Your task to perform on an android device: Add "razer thresher" to the cart on costco.com, then select checkout. Image 0: 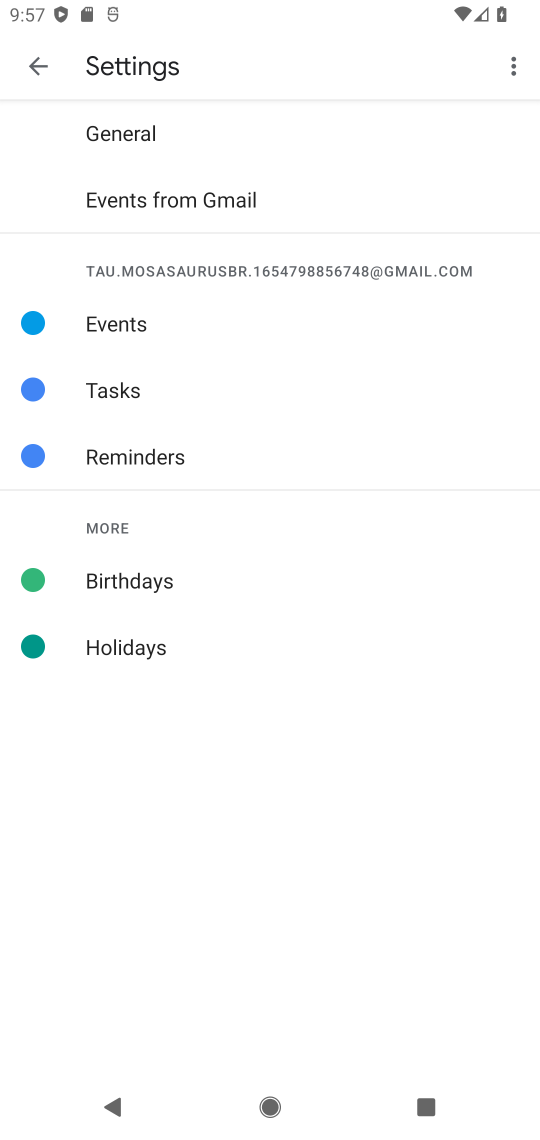
Step 0: press home button
Your task to perform on an android device: Add "razer thresher" to the cart on costco.com, then select checkout. Image 1: 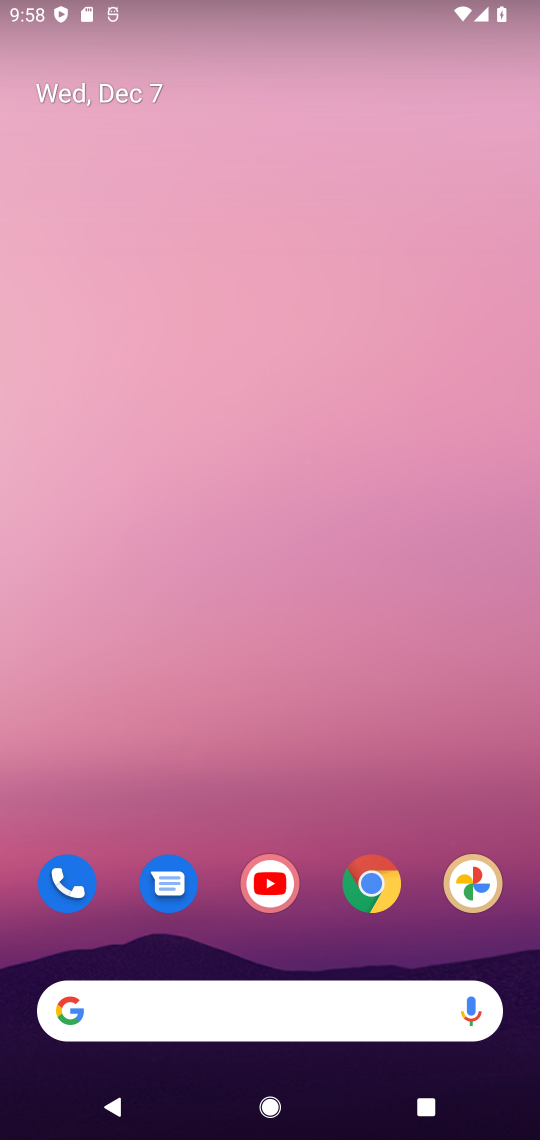
Step 1: drag from (208, 859) to (237, 176)
Your task to perform on an android device: Add "razer thresher" to the cart on costco.com, then select checkout. Image 2: 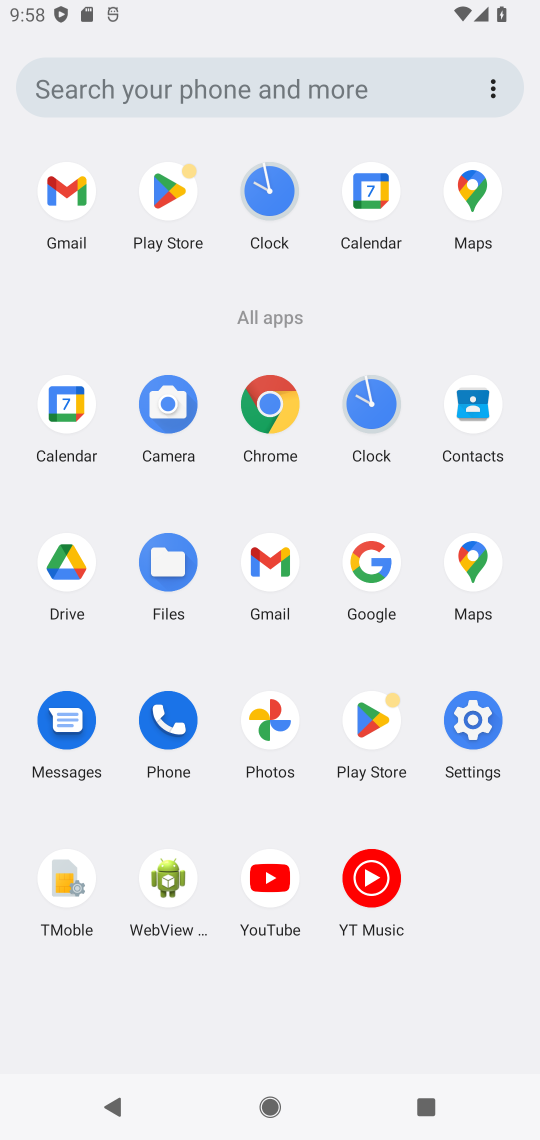
Step 2: click (376, 570)
Your task to perform on an android device: Add "razer thresher" to the cart on costco.com, then select checkout. Image 3: 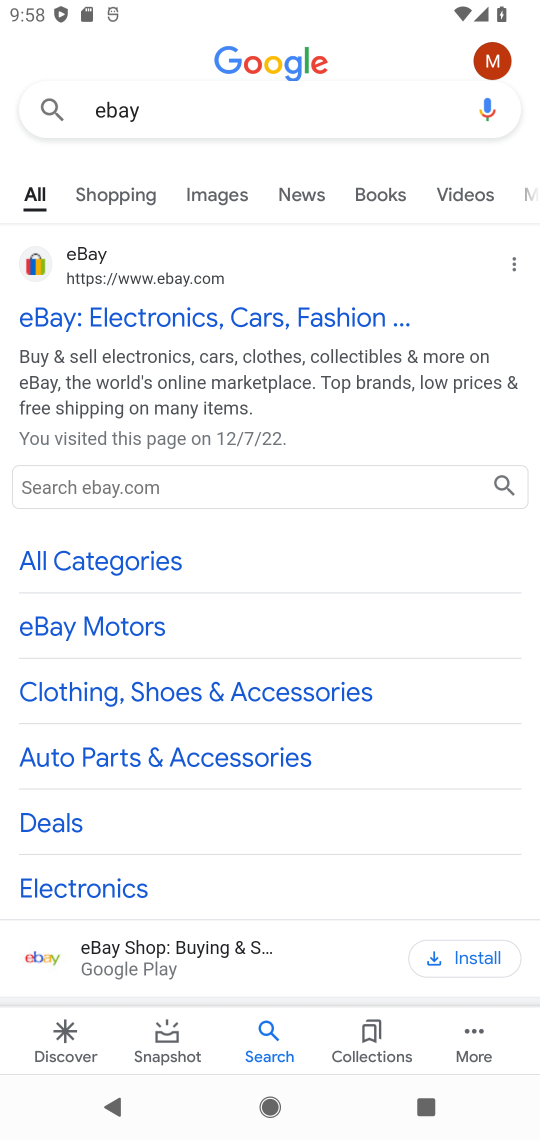
Step 3: click (161, 113)
Your task to perform on an android device: Add "razer thresher" to the cart on costco.com, then select checkout. Image 4: 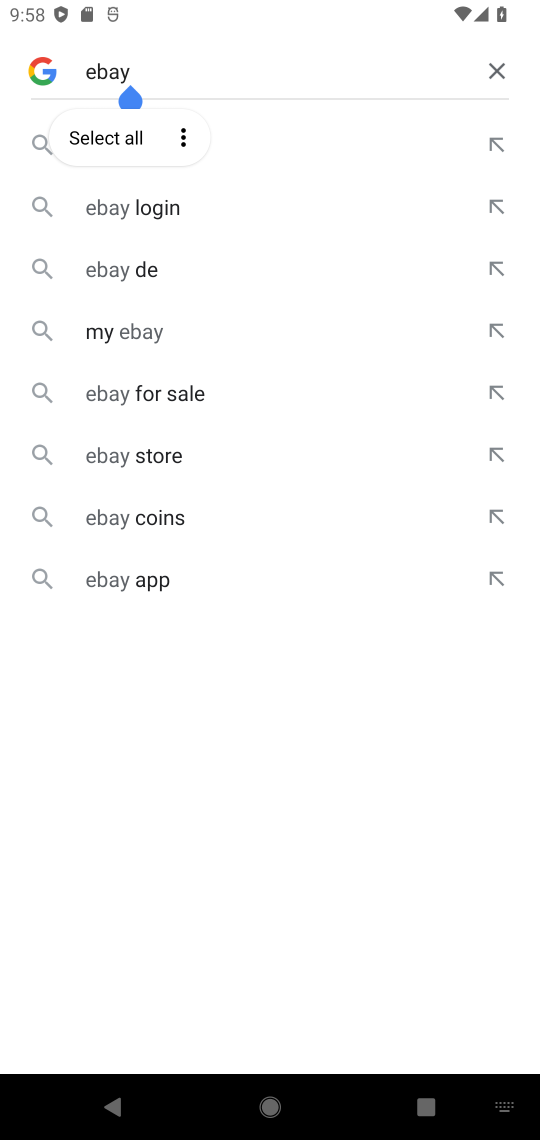
Step 4: click (492, 71)
Your task to perform on an android device: Add "razer thresher" to the cart on costco.com, then select checkout. Image 5: 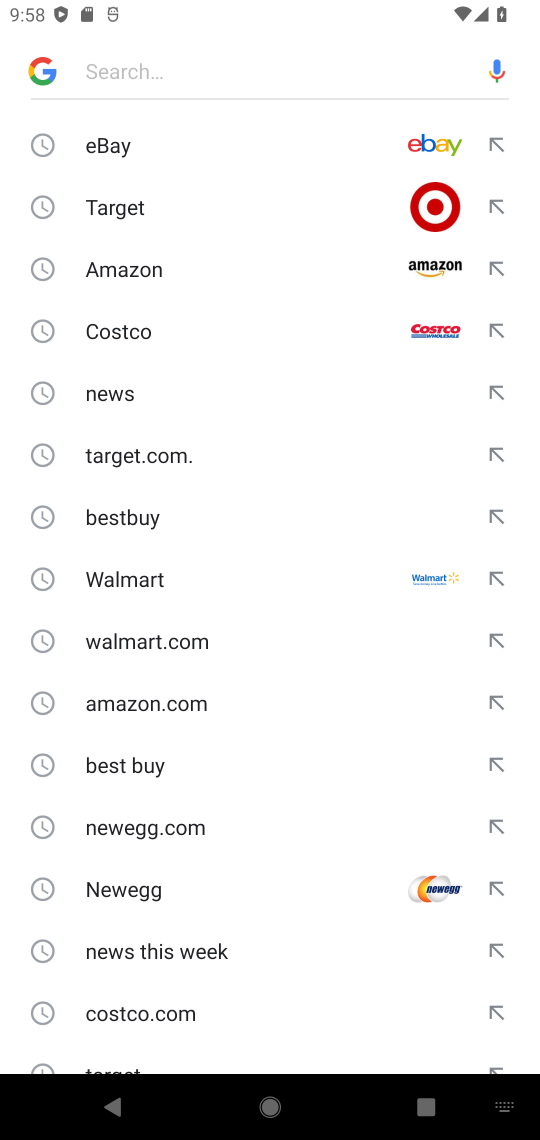
Step 5: click (153, 332)
Your task to perform on an android device: Add "razer thresher" to the cart on costco.com, then select checkout. Image 6: 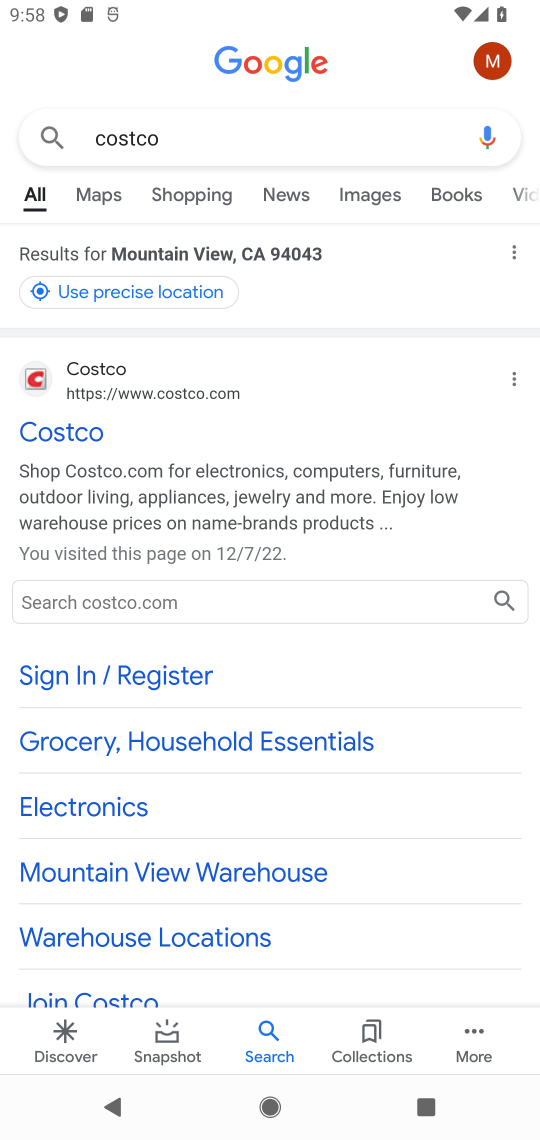
Step 6: click (67, 437)
Your task to perform on an android device: Add "razer thresher" to the cart on costco.com, then select checkout. Image 7: 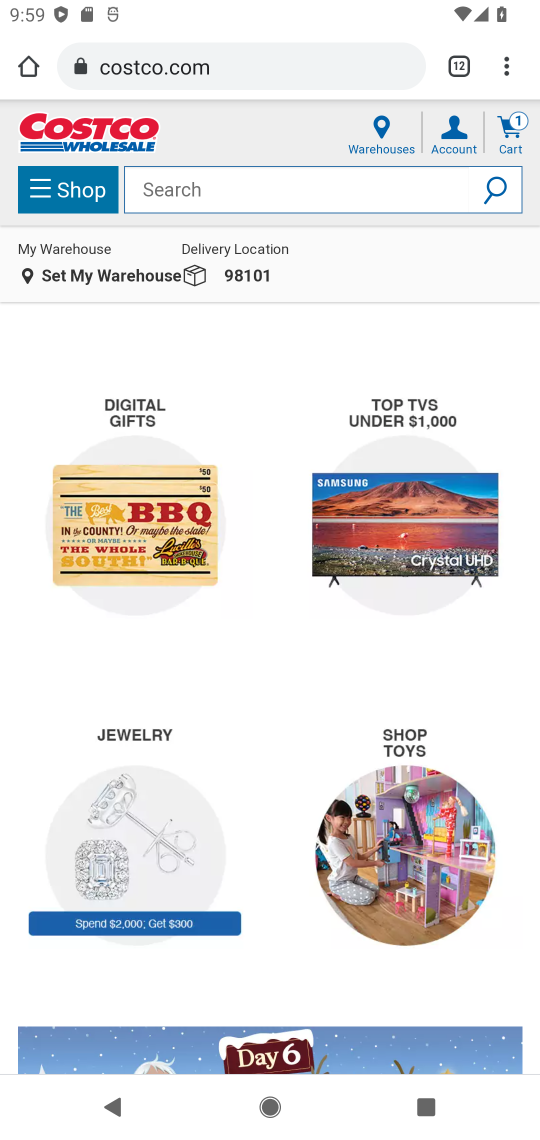
Step 7: click (194, 193)
Your task to perform on an android device: Add "razer thresher" to the cart on costco.com, then select checkout. Image 8: 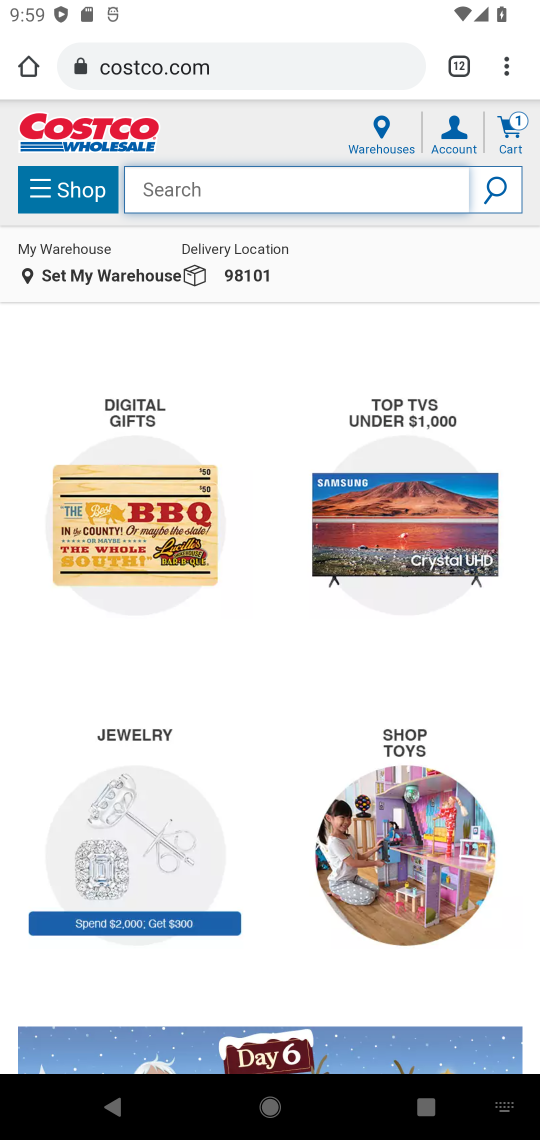
Step 8: click (216, 186)
Your task to perform on an android device: Add "razer thresher" to the cart on costco.com, then select checkout. Image 9: 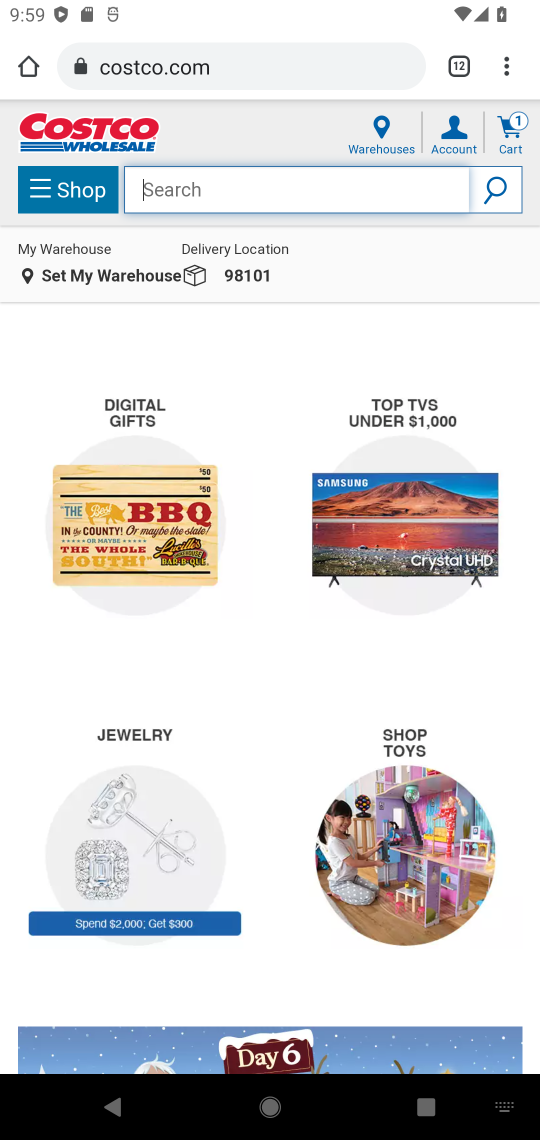
Step 9: type "razer thresher"
Your task to perform on an android device: Add "razer thresher" to the cart on costco.com, then select checkout. Image 10: 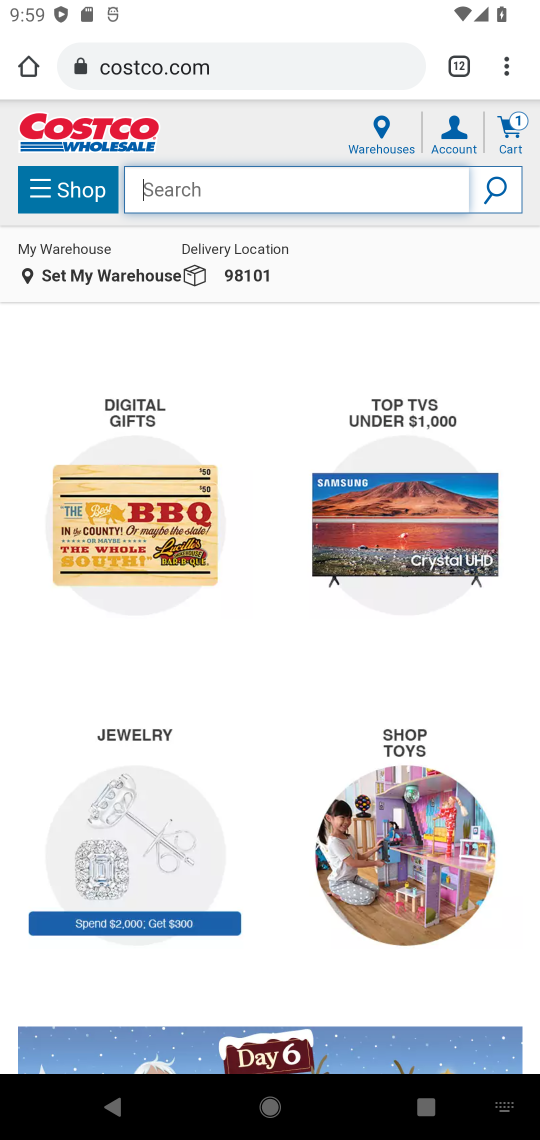
Step 10: click (494, 197)
Your task to perform on an android device: Add "razer thresher" to the cart on costco.com, then select checkout. Image 11: 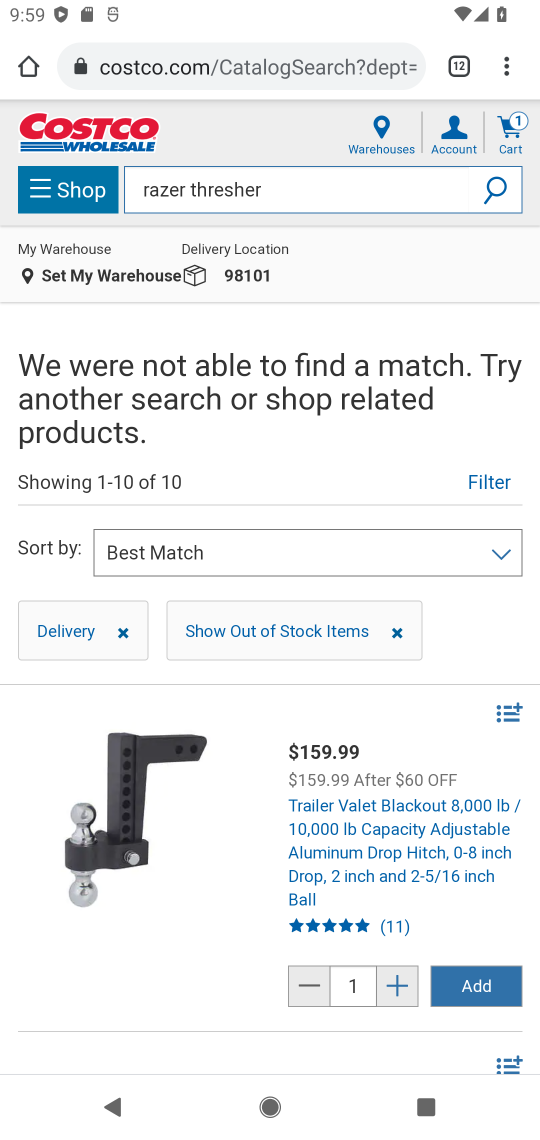
Step 11: drag from (432, 907) to (424, 531)
Your task to perform on an android device: Add "razer thresher" to the cart on costco.com, then select checkout. Image 12: 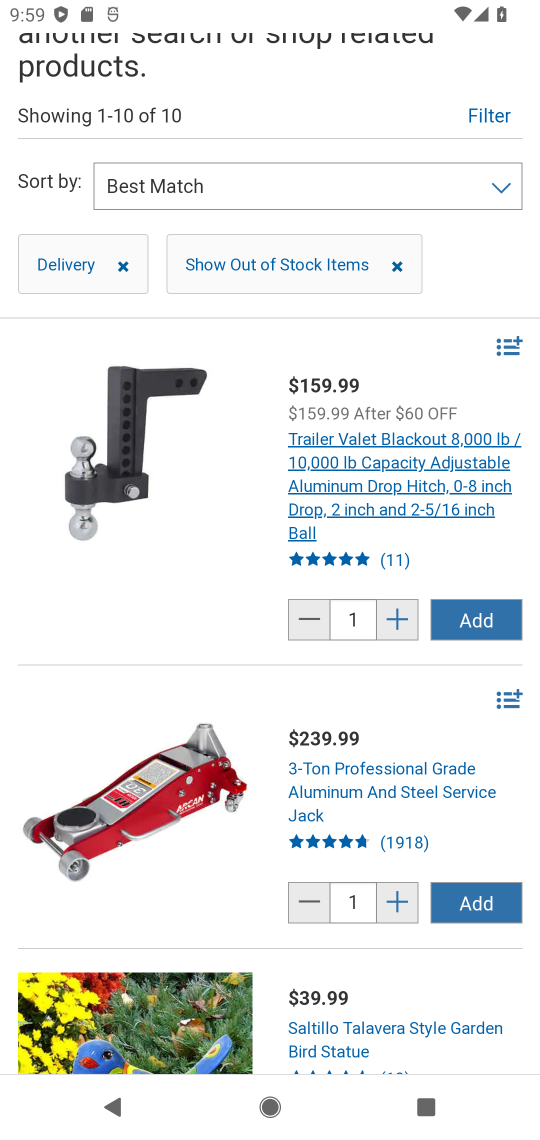
Step 12: click (461, 616)
Your task to perform on an android device: Add "razer thresher" to the cart on costco.com, then select checkout. Image 13: 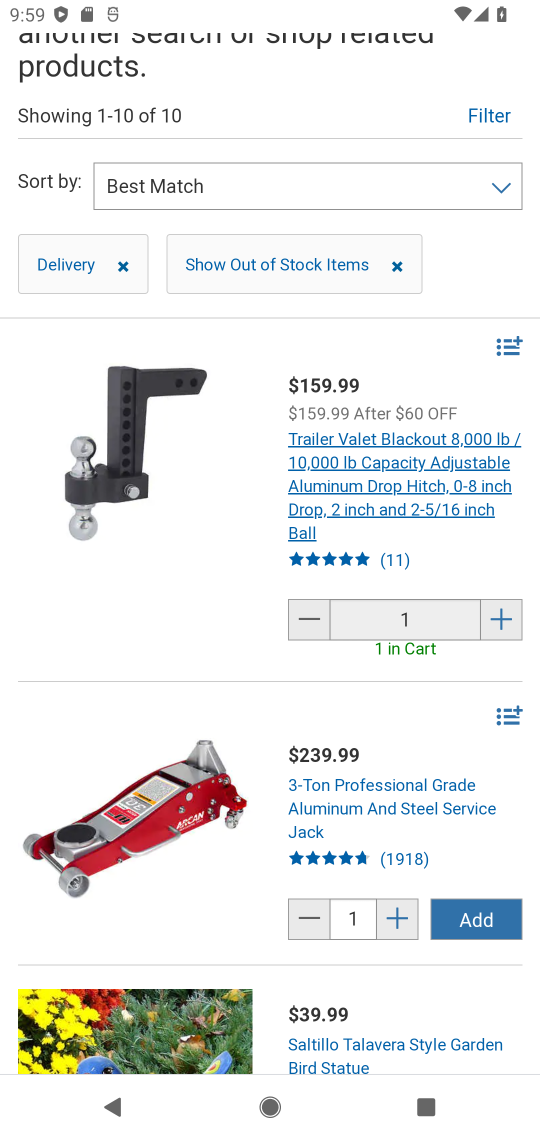
Step 13: task complete